Your task to perform on an android device: Search for the best 100% cotton t-shirts Image 0: 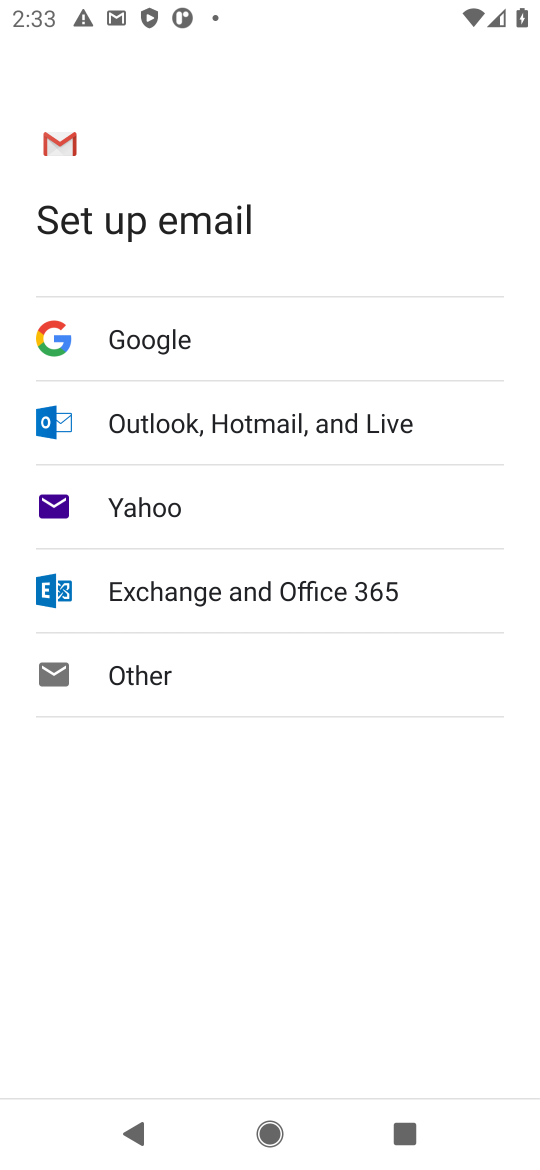
Step 0: press home button
Your task to perform on an android device: Search for the best 100% cotton t-shirts Image 1: 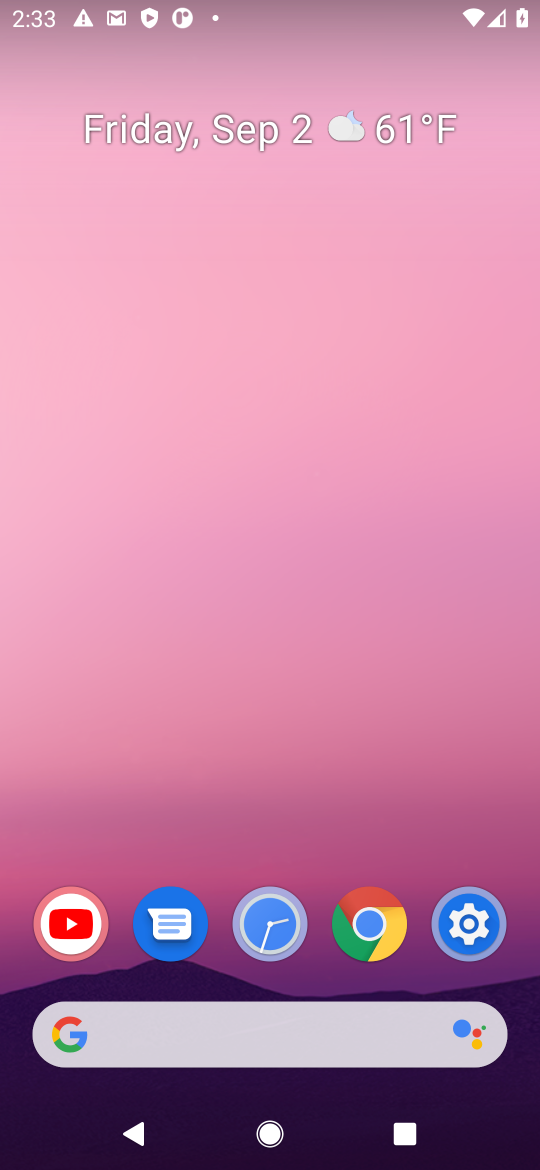
Step 1: click (356, 1039)
Your task to perform on an android device: Search for the best 100% cotton t-shirts Image 2: 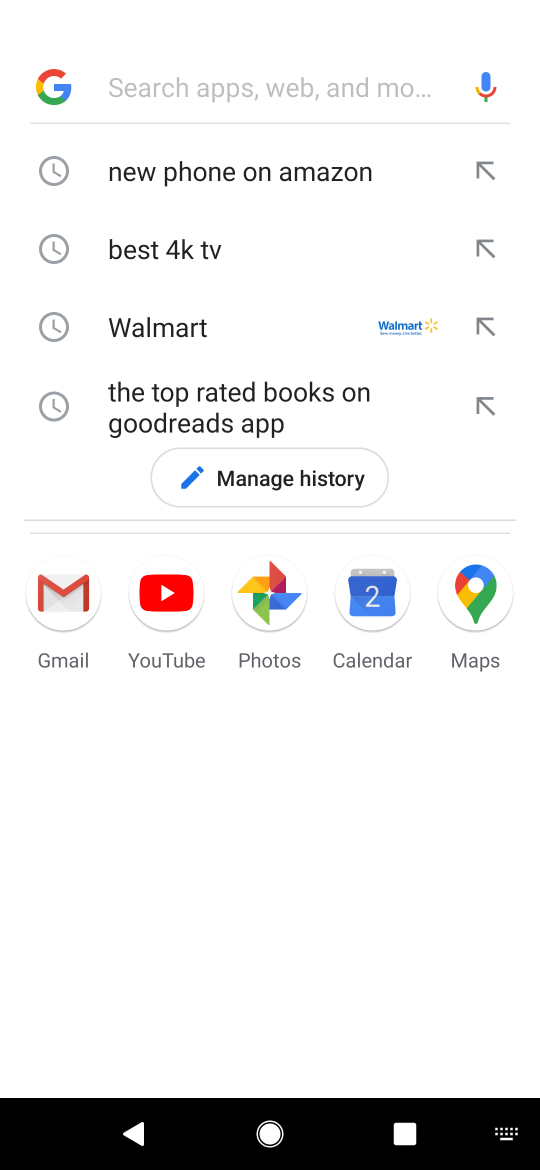
Step 2: type "best 100% cotton t shirts"
Your task to perform on an android device: Search for the best 100% cotton t-shirts Image 3: 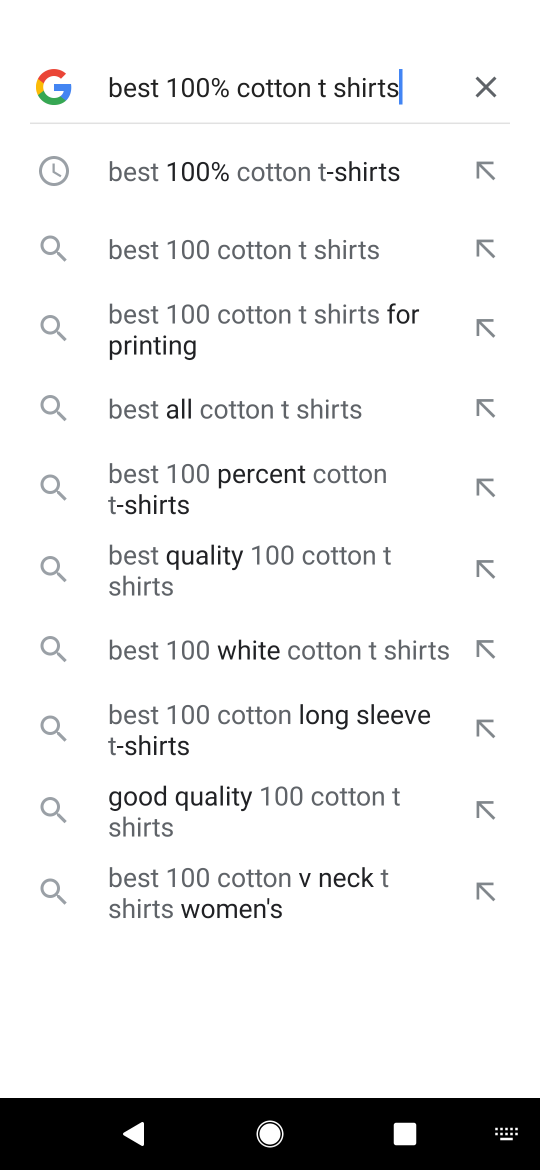
Step 3: click (319, 175)
Your task to perform on an android device: Search for the best 100% cotton t-shirts Image 4: 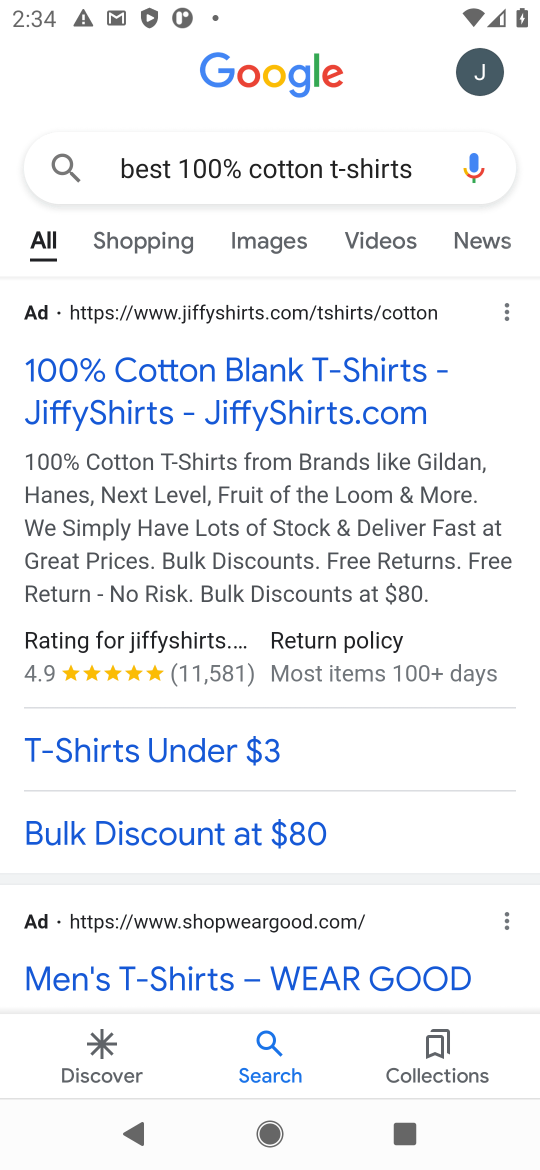
Step 4: click (351, 378)
Your task to perform on an android device: Search for the best 100% cotton t-shirts Image 5: 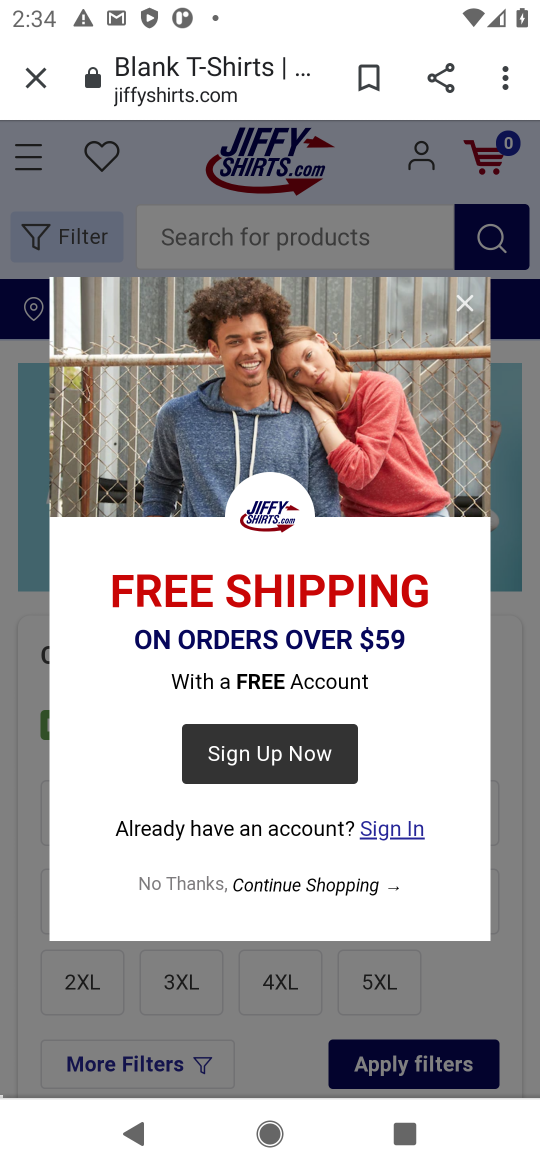
Step 5: click (463, 299)
Your task to perform on an android device: Search for the best 100% cotton t-shirts Image 6: 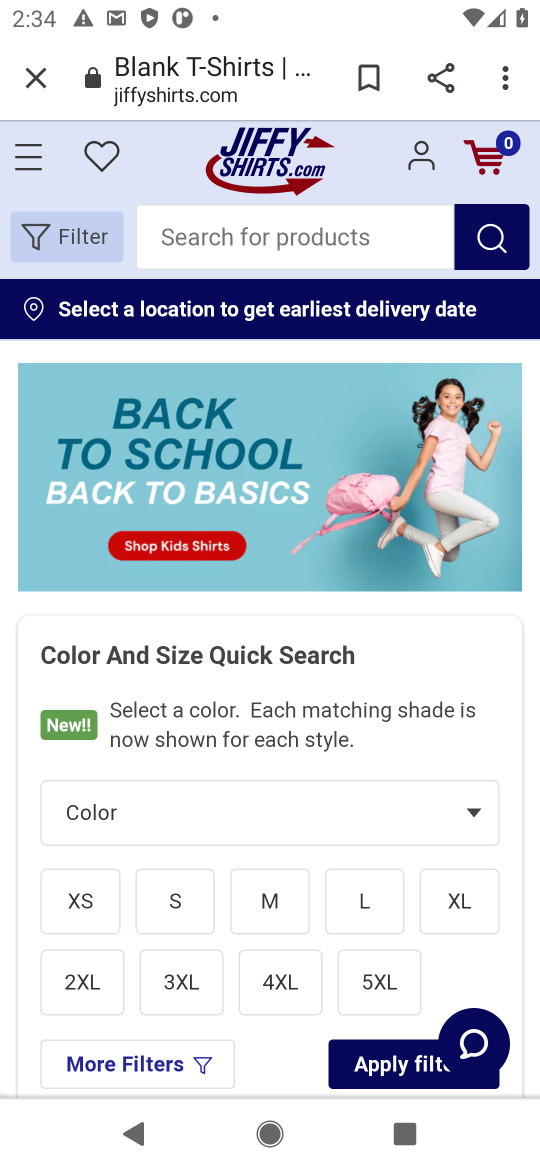
Step 6: task complete